Your task to perform on an android device: change text size in settings app Image 0: 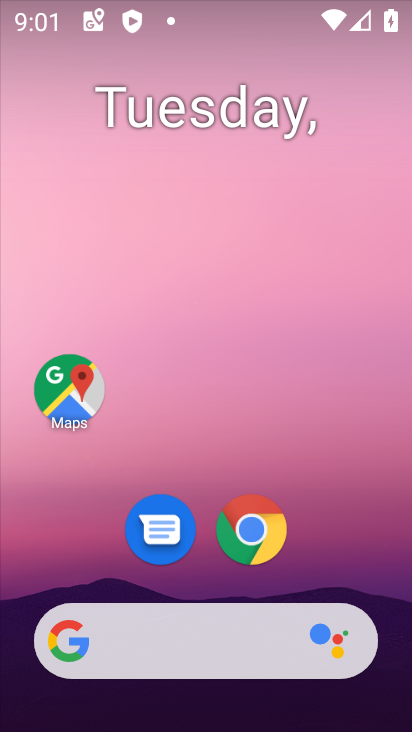
Step 0: drag from (220, 707) to (292, 294)
Your task to perform on an android device: change text size in settings app Image 1: 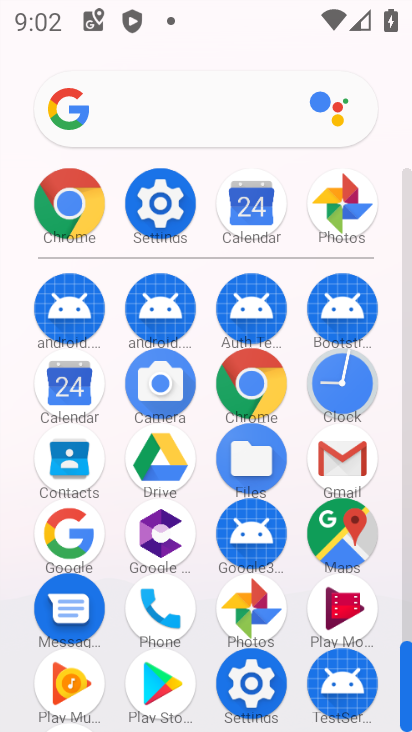
Step 1: click (263, 697)
Your task to perform on an android device: change text size in settings app Image 2: 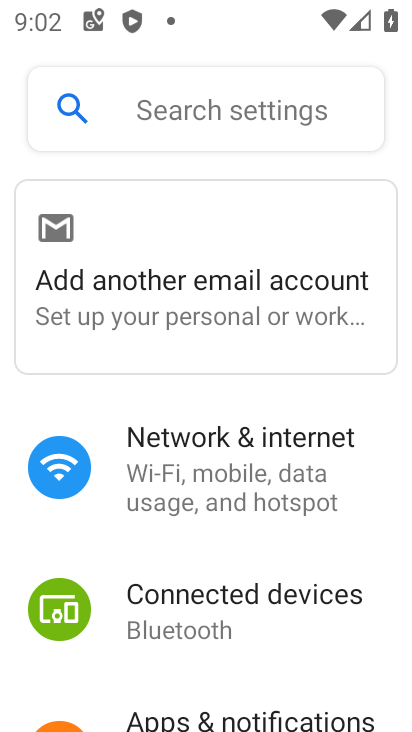
Step 2: drag from (255, 614) to (311, 253)
Your task to perform on an android device: change text size in settings app Image 3: 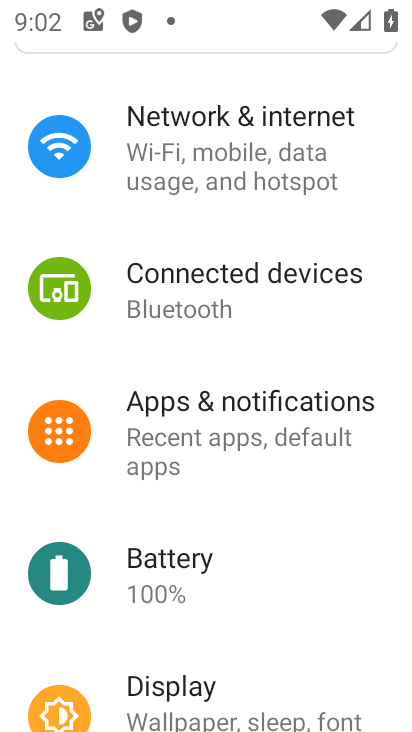
Step 3: drag from (218, 563) to (230, 353)
Your task to perform on an android device: change text size in settings app Image 4: 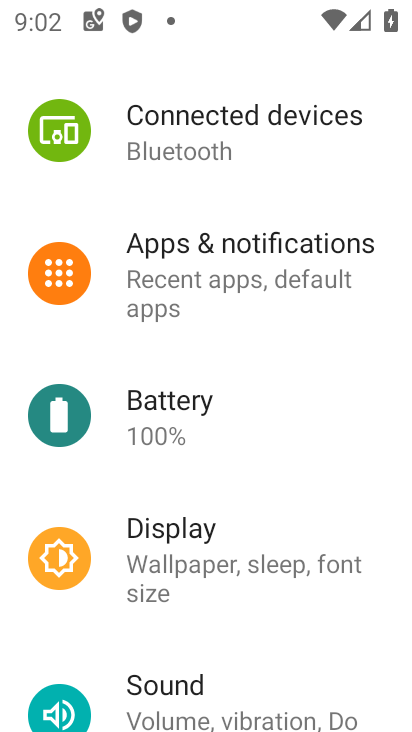
Step 4: click (220, 563)
Your task to perform on an android device: change text size in settings app Image 5: 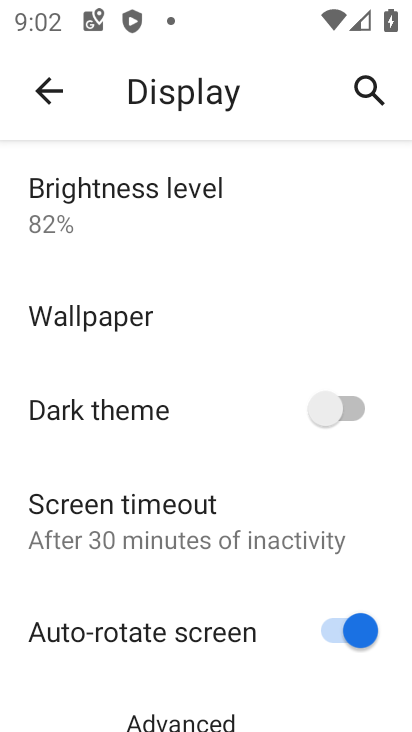
Step 5: drag from (131, 582) to (164, 461)
Your task to perform on an android device: change text size in settings app Image 6: 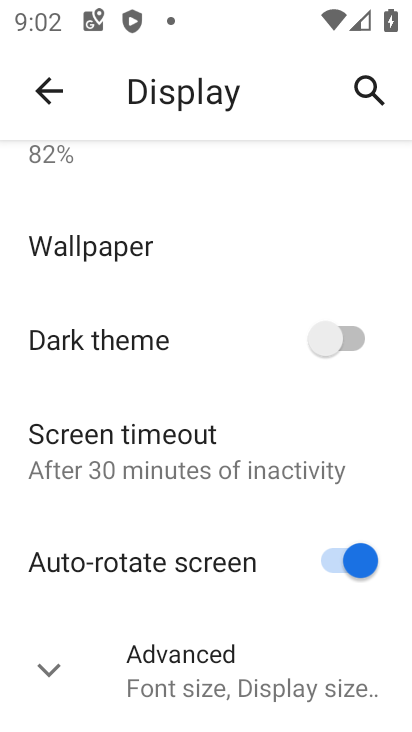
Step 6: click (189, 683)
Your task to perform on an android device: change text size in settings app Image 7: 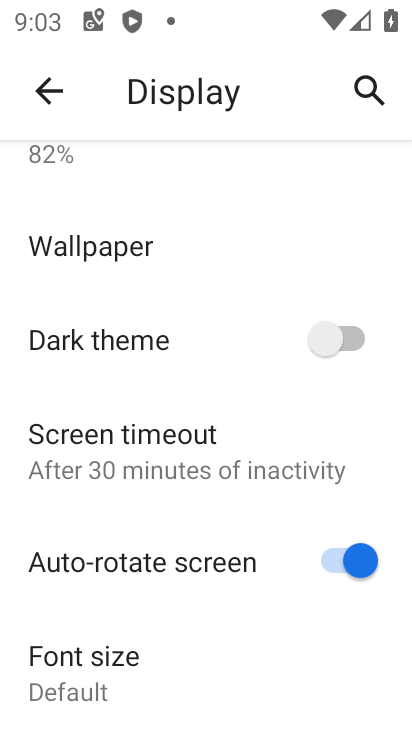
Step 7: drag from (187, 623) to (260, 352)
Your task to perform on an android device: change text size in settings app Image 8: 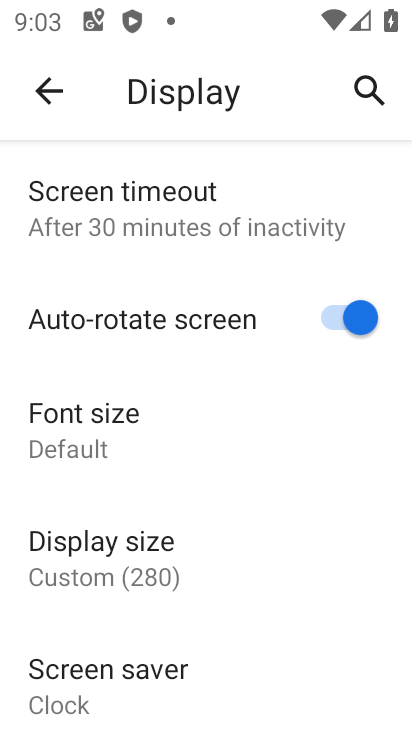
Step 8: drag from (190, 579) to (211, 439)
Your task to perform on an android device: change text size in settings app Image 9: 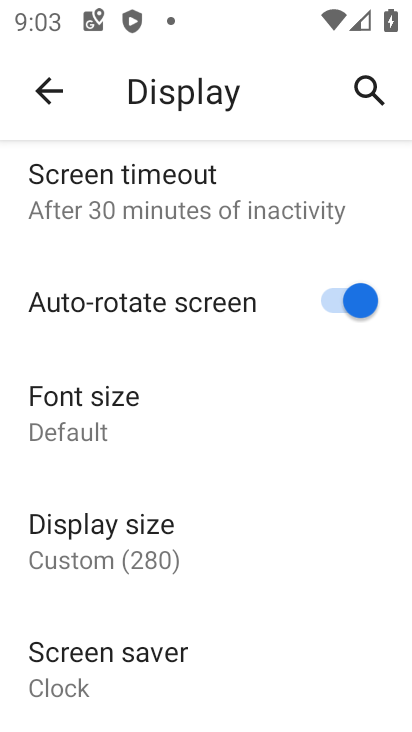
Step 9: click (136, 431)
Your task to perform on an android device: change text size in settings app Image 10: 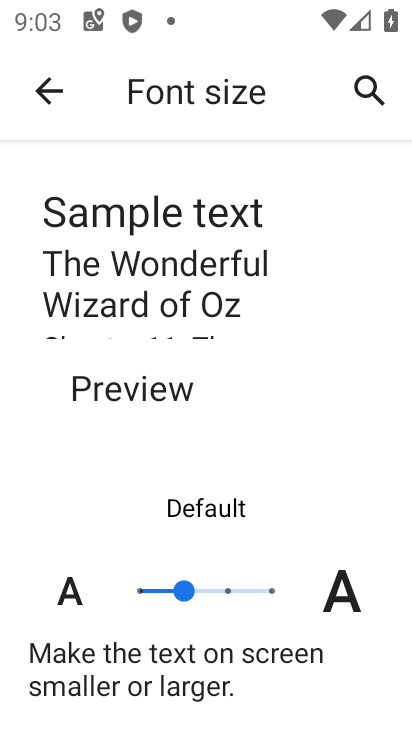
Step 10: click (225, 588)
Your task to perform on an android device: change text size in settings app Image 11: 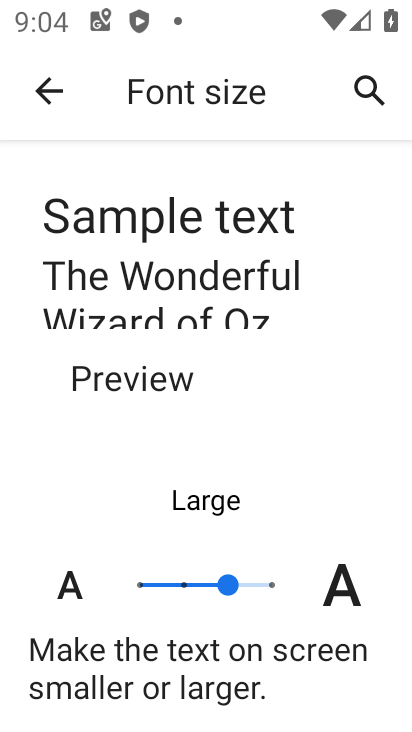
Step 11: task complete